Your task to perform on an android device: Check the weather Image 0: 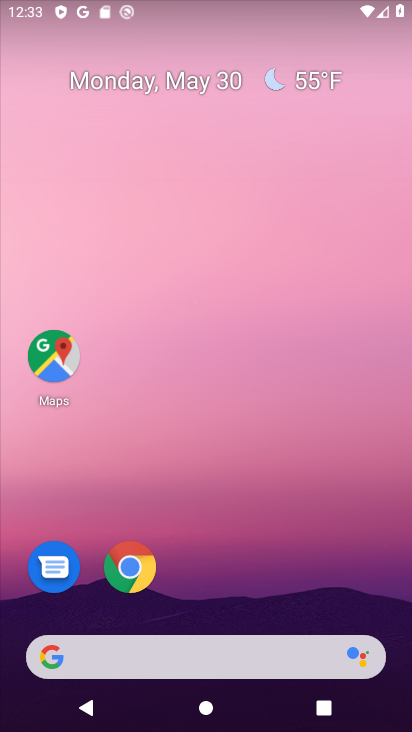
Step 0: press home button
Your task to perform on an android device: Check the weather Image 1: 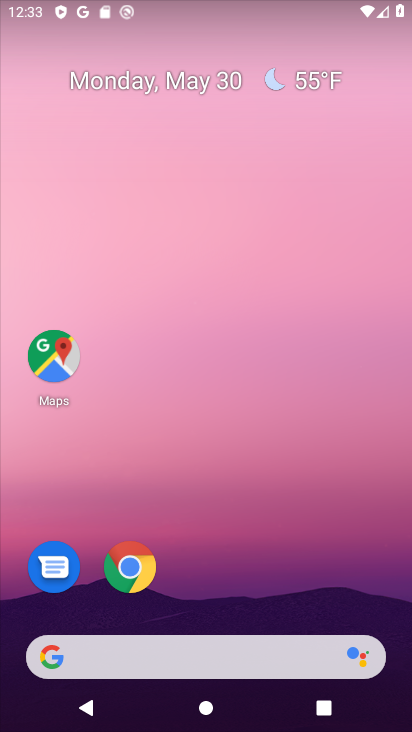
Step 1: click (311, 81)
Your task to perform on an android device: Check the weather Image 2: 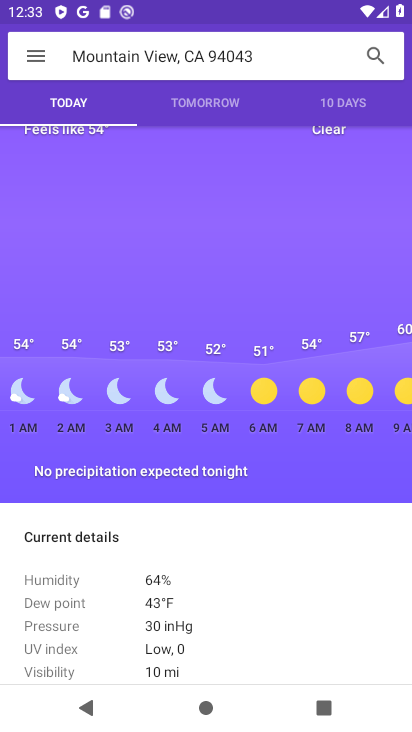
Step 2: task complete